Your task to perform on an android device: Search for "usb-a to usb-b" on walmart.com, select the first entry, and add it to the cart. Image 0: 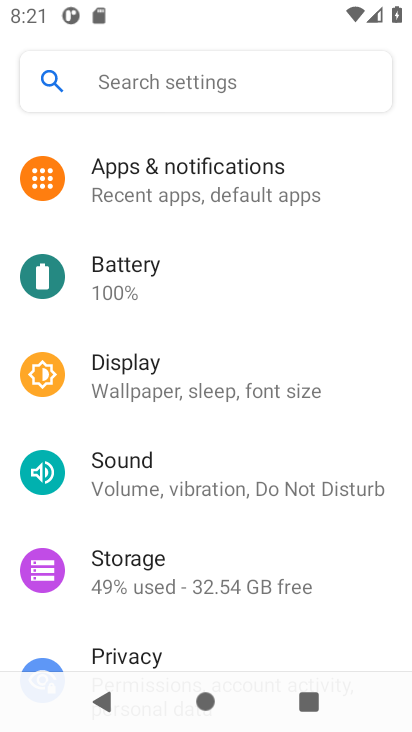
Step 0: press home button
Your task to perform on an android device: Search for "usb-a to usb-b" on walmart.com, select the first entry, and add it to the cart. Image 1: 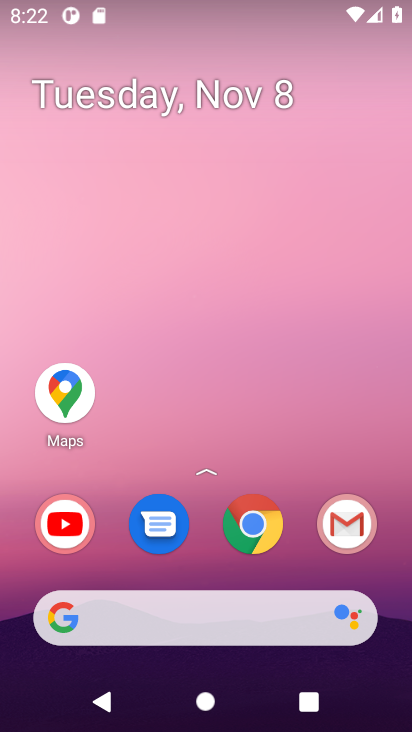
Step 1: click (265, 529)
Your task to perform on an android device: Search for "usb-a to usb-b" on walmart.com, select the first entry, and add it to the cart. Image 2: 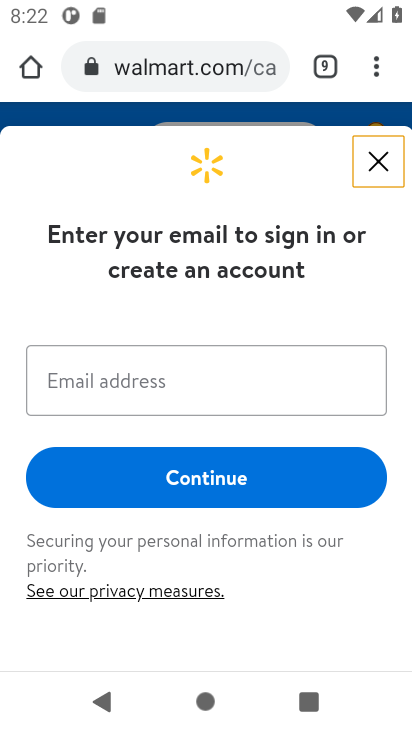
Step 2: click (383, 160)
Your task to perform on an android device: Search for "usb-a to usb-b" on walmart.com, select the first entry, and add it to the cart. Image 3: 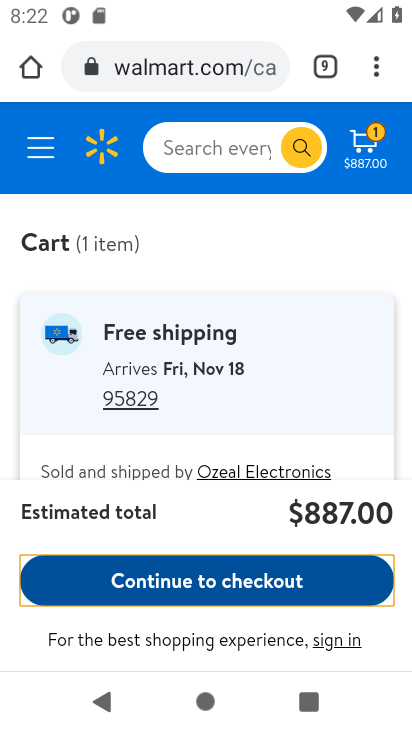
Step 3: click (215, 144)
Your task to perform on an android device: Search for "usb-a to usb-b" on walmart.com, select the first entry, and add it to the cart. Image 4: 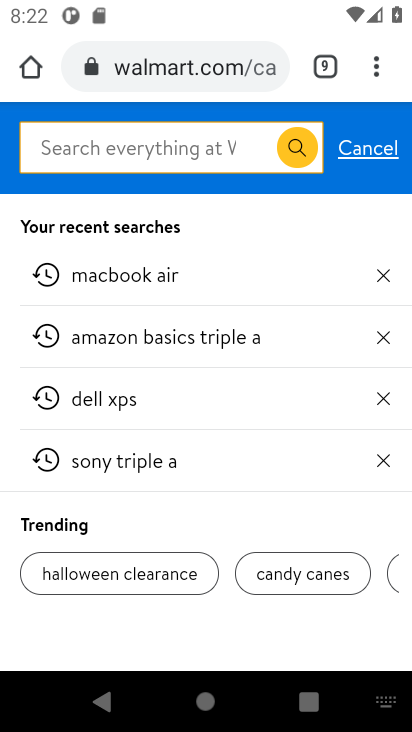
Step 4: type "usb-a to usb-b"
Your task to perform on an android device: Search for "usb-a to usb-b" on walmart.com, select the first entry, and add it to the cart. Image 5: 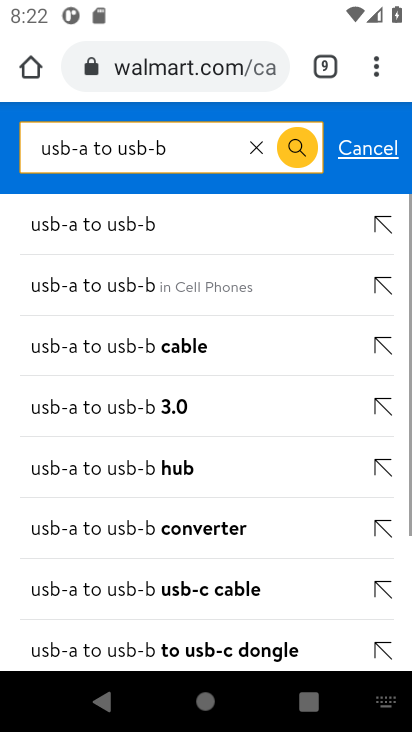
Step 5: click (146, 241)
Your task to perform on an android device: Search for "usb-a to usb-b" on walmart.com, select the first entry, and add it to the cart. Image 6: 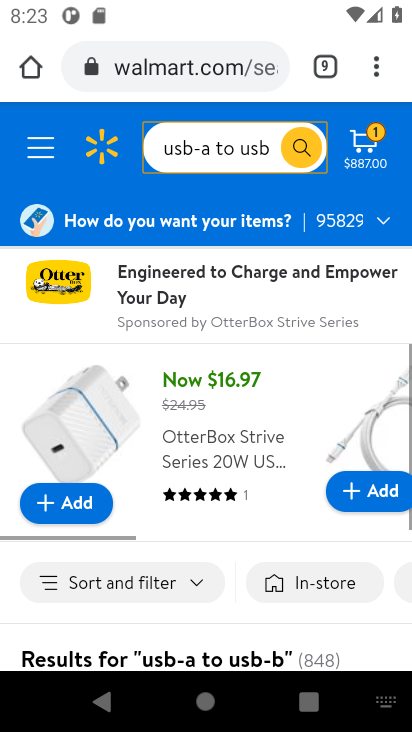
Step 6: drag from (177, 392) to (186, 315)
Your task to perform on an android device: Search for "usb-a to usb-b" on walmart.com, select the first entry, and add it to the cart. Image 7: 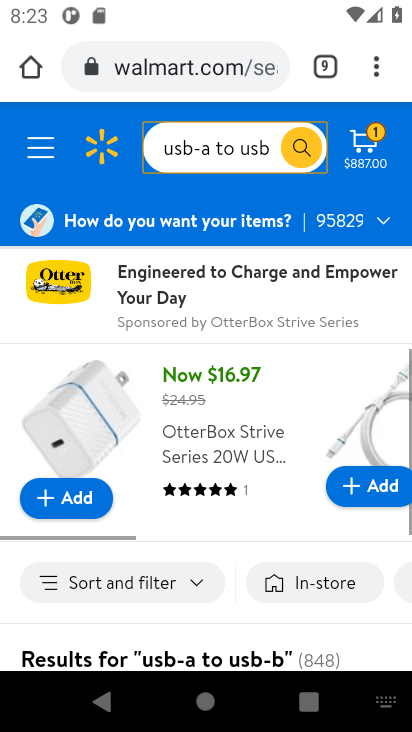
Step 7: drag from (146, 472) to (155, 308)
Your task to perform on an android device: Search for "usb-a to usb-b" on walmart.com, select the first entry, and add it to the cart. Image 8: 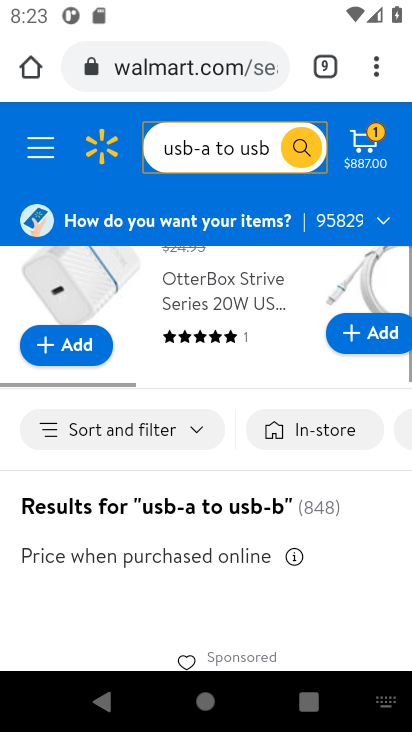
Step 8: drag from (150, 533) to (142, 277)
Your task to perform on an android device: Search for "usb-a to usb-b" on walmart.com, select the first entry, and add it to the cart. Image 9: 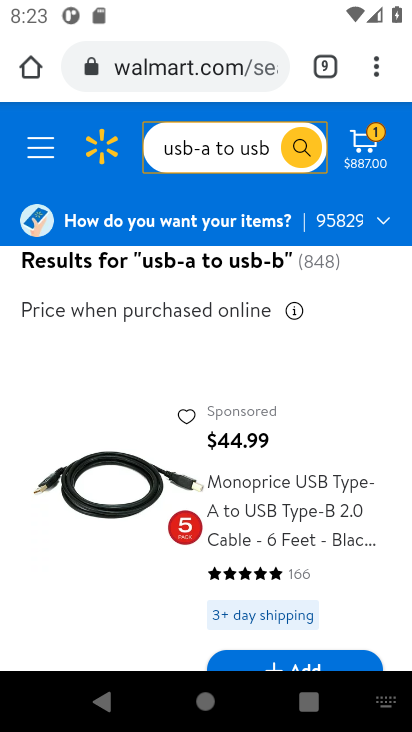
Step 9: drag from (158, 571) to (150, 342)
Your task to perform on an android device: Search for "usb-a to usb-b" on walmart.com, select the first entry, and add it to the cart. Image 10: 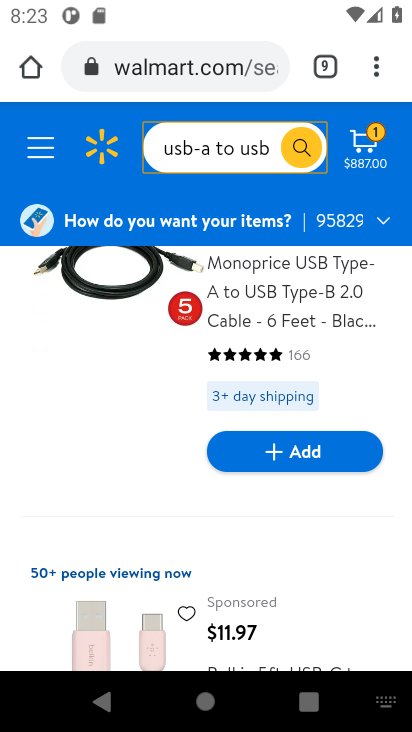
Step 10: click (303, 454)
Your task to perform on an android device: Search for "usb-a to usb-b" on walmart.com, select the first entry, and add it to the cart. Image 11: 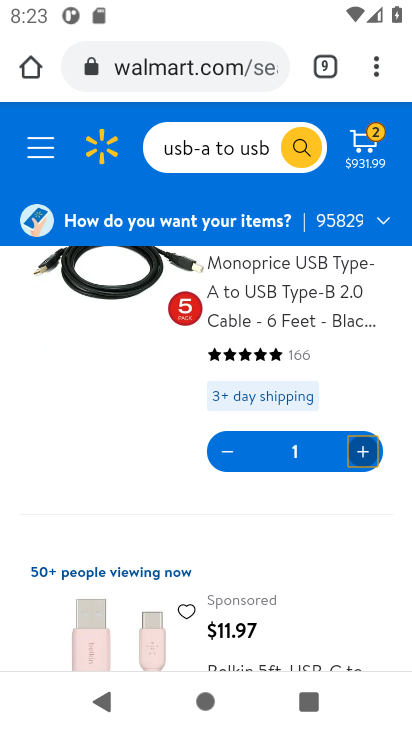
Step 11: task complete